Your task to perform on an android device: Open sound settings Image 0: 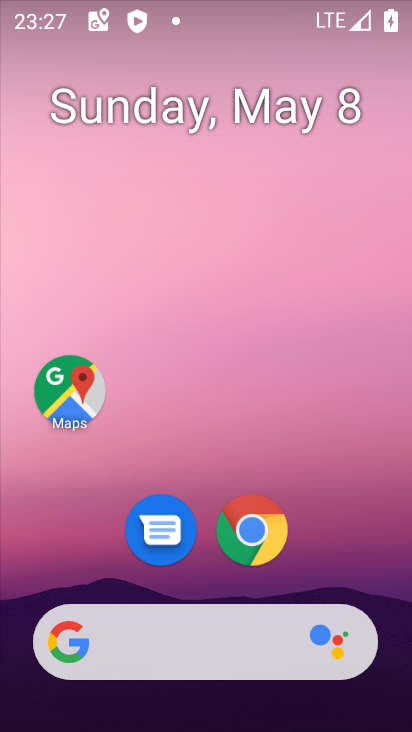
Step 0: drag from (375, 568) to (381, 209)
Your task to perform on an android device: Open sound settings Image 1: 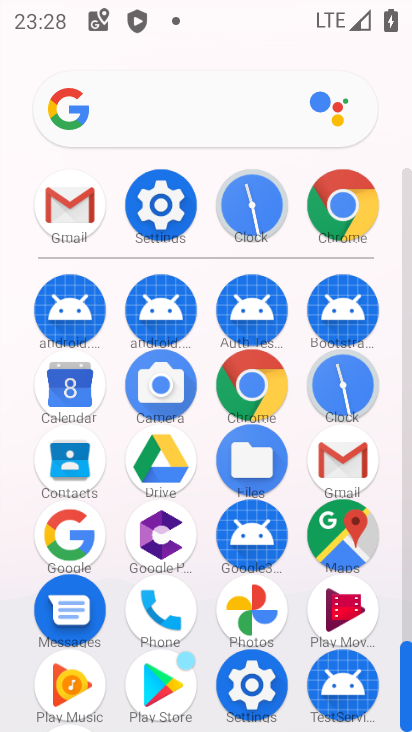
Step 1: click (147, 208)
Your task to perform on an android device: Open sound settings Image 2: 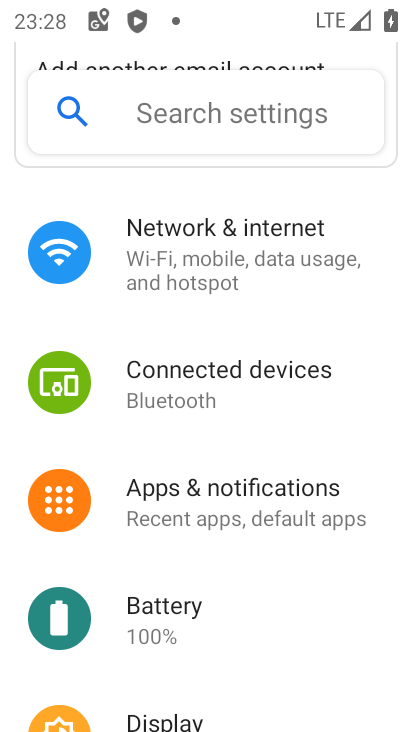
Step 2: drag from (216, 677) to (234, 301)
Your task to perform on an android device: Open sound settings Image 3: 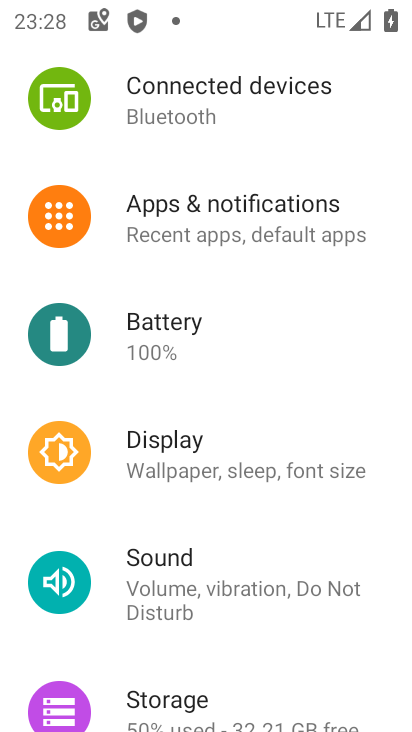
Step 3: click (173, 574)
Your task to perform on an android device: Open sound settings Image 4: 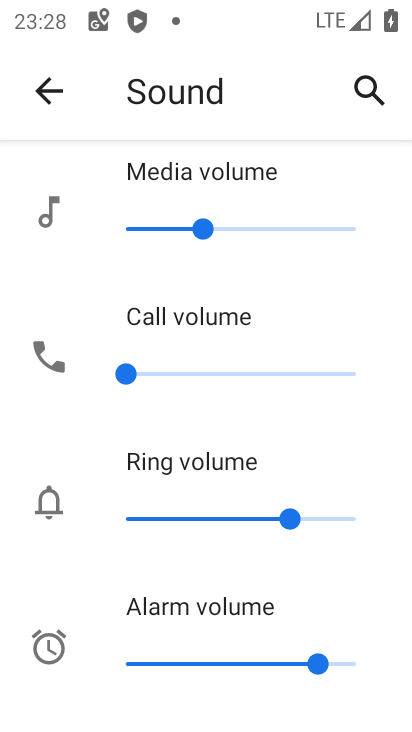
Step 4: task complete